Your task to perform on an android device: toggle sleep mode Image 0: 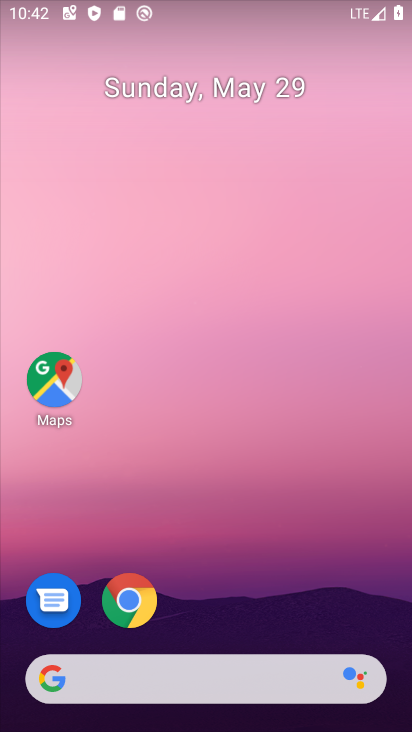
Step 0: drag from (313, 582) to (256, 106)
Your task to perform on an android device: toggle sleep mode Image 1: 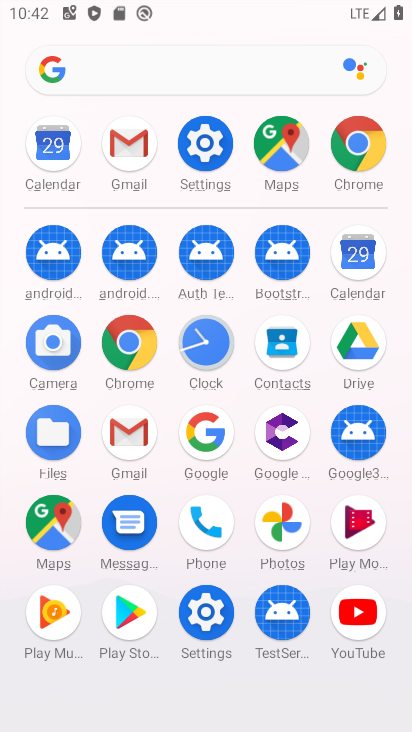
Step 1: click (223, 160)
Your task to perform on an android device: toggle sleep mode Image 2: 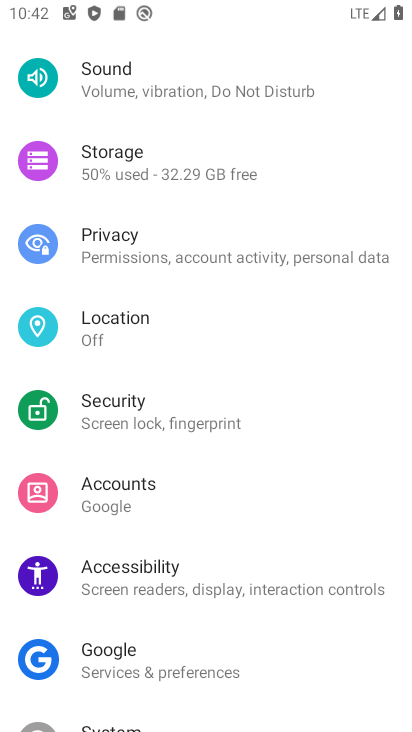
Step 2: drag from (285, 83) to (327, 723)
Your task to perform on an android device: toggle sleep mode Image 3: 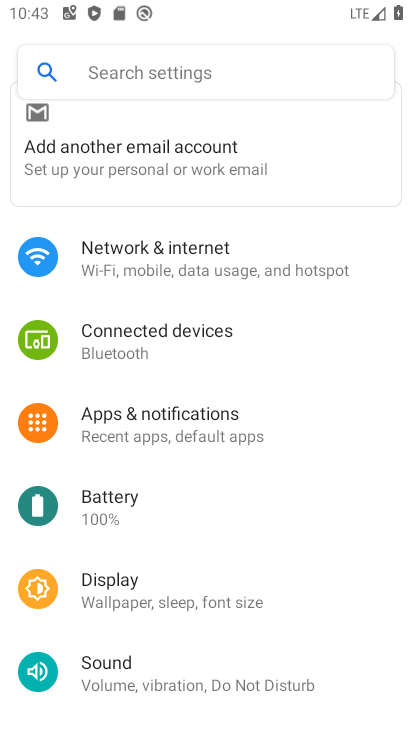
Step 3: click (194, 587)
Your task to perform on an android device: toggle sleep mode Image 4: 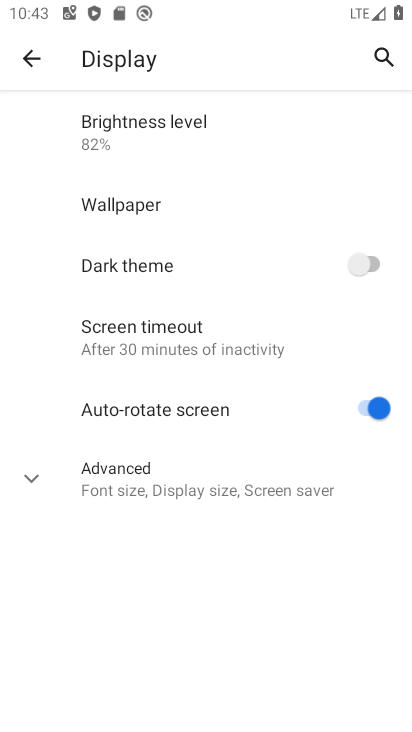
Step 4: task complete